Your task to perform on an android device: turn vacation reply on in the gmail app Image 0: 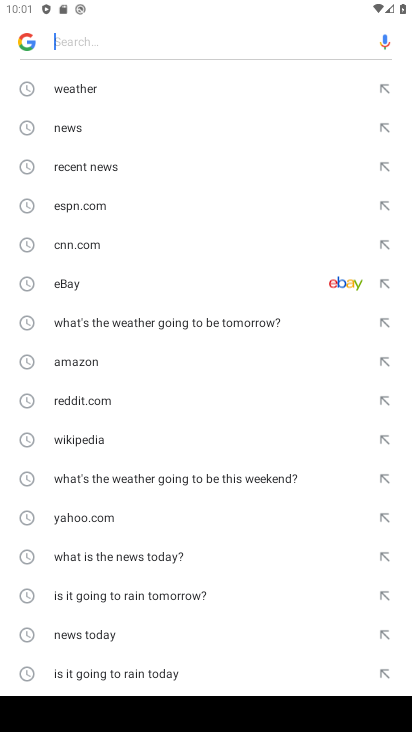
Step 0: press home button
Your task to perform on an android device: turn vacation reply on in the gmail app Image 1: 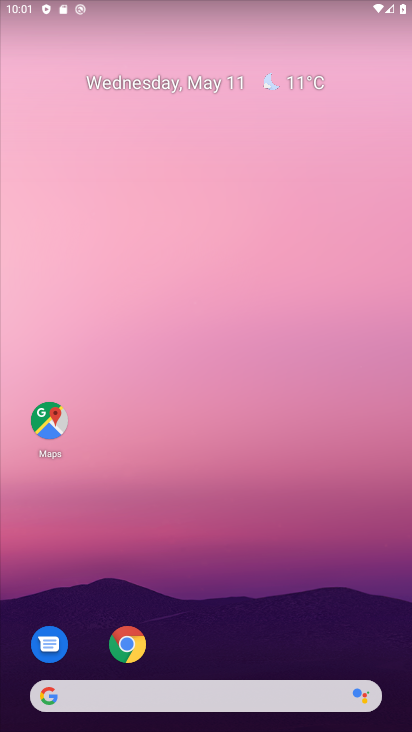
Step 1: drag from (344, 631) to (351, 3)
Your task to perform on an android device: turn vacation reply on in the gmail app Image 2: 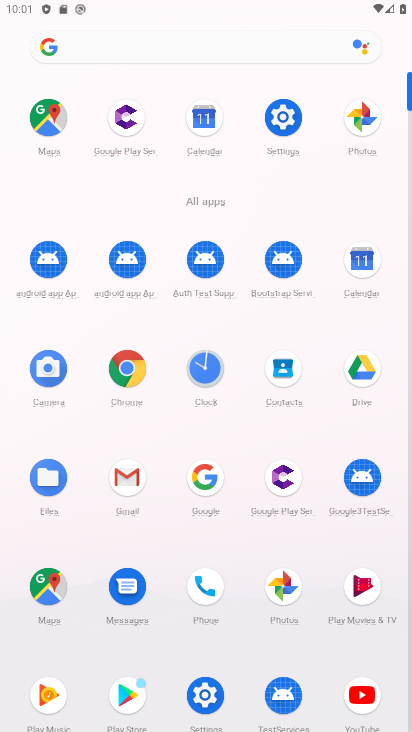
Step 2: click (128, 489)
Your task to perform on an android device: turn vacation reply on in the gmail app Image 3: 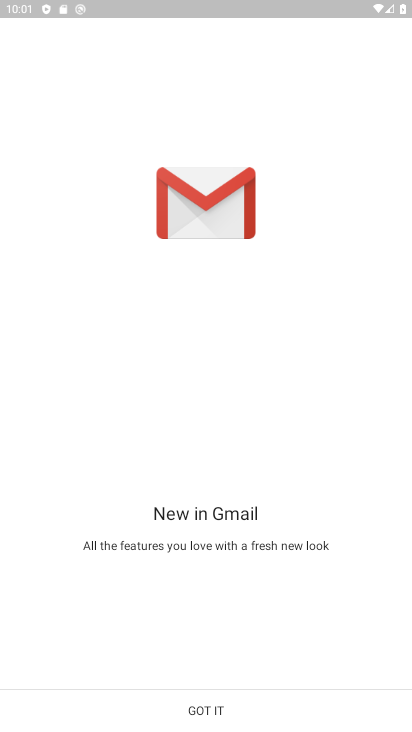
Step 3: click (198, 719)
Your task to perform on an android device: turn vacation reply on in the gmail app Image 4: 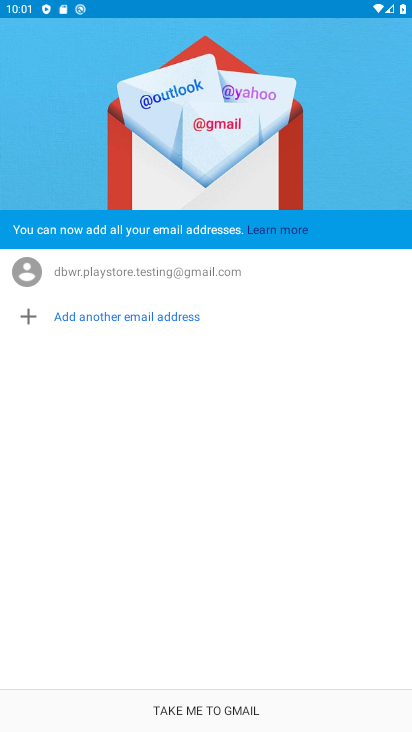
Step 4: click (223, 702)
Your task to perform on an android device: turn vacation reply on in the gmail app Image 5: 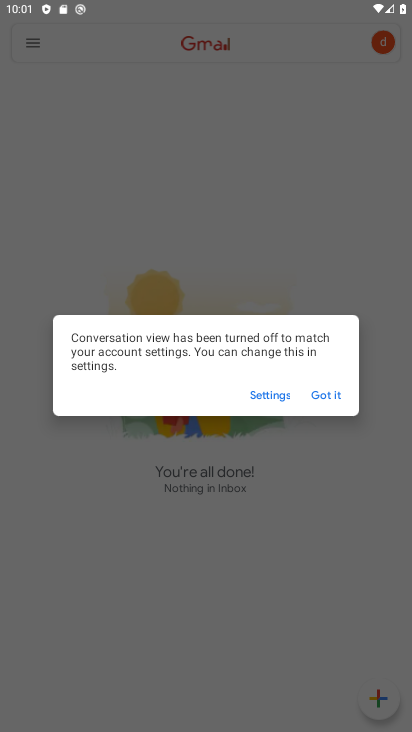
Step 5: click (330, 396)
Your task to perform on an android device: turn vacation reply on in the gmail app Image 6: 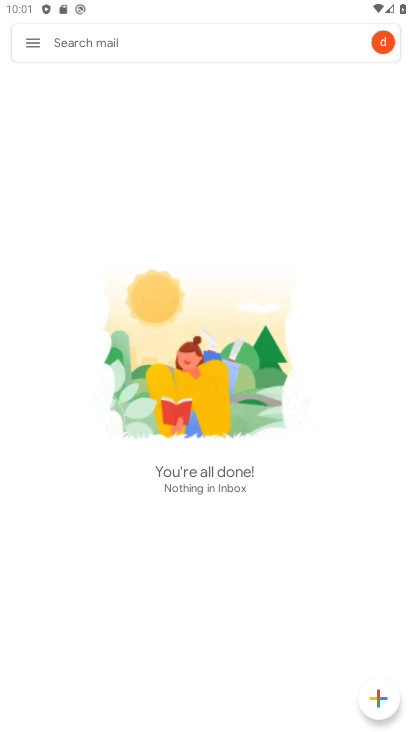
Step 6: click (32, 45)
Your task to perform on an android device: turn vacation reply on in the gmail app Image 7: 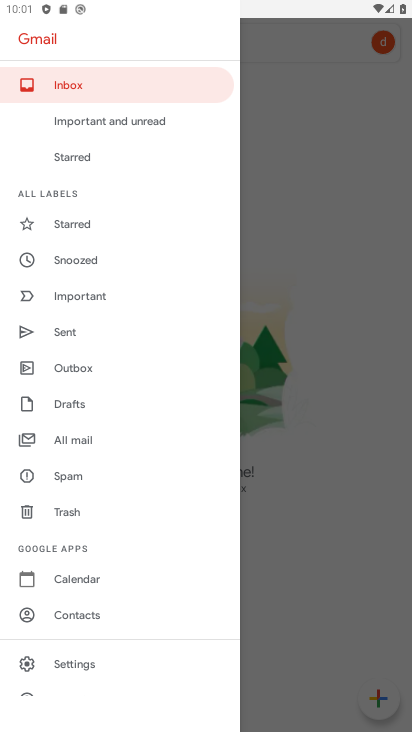
Step 7: click (85, 665)
Your task to perform on an android device: turn vacation reply on in the gmail app Image 8: 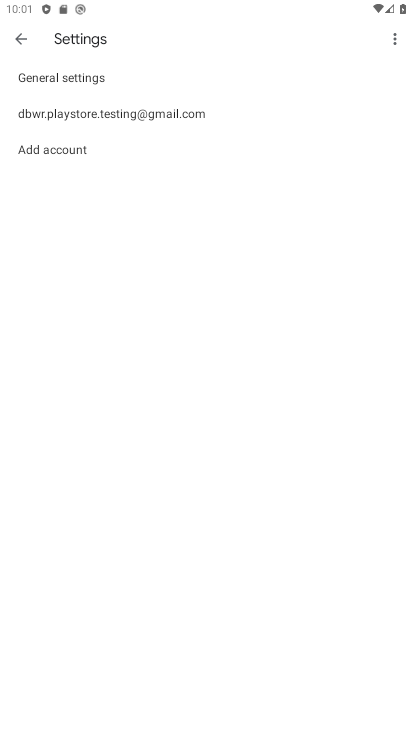
Step 8: click (119, 119)
Your task to perform on an android device: turn vacation reply on in the gmail app Image 9: 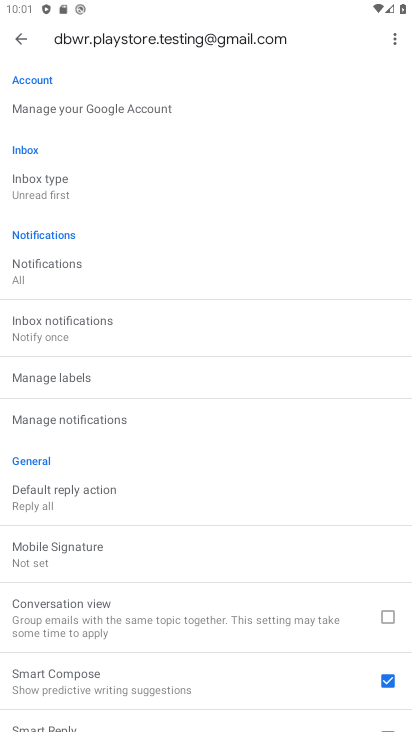
Step 9: drag from (154, 635) to (171, 162)
Your task to perform on an android device: turn vacation reply on in the gmail app Image 10: 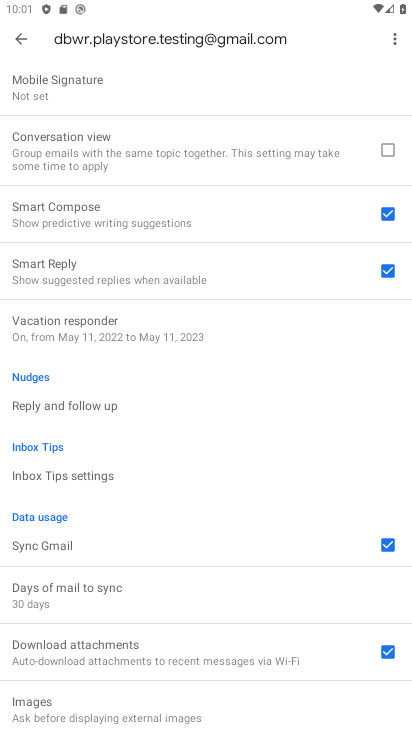
Step 10: click (73, 326)
Your task to perform on an android device: turn vacation reply on in the gmail app Image 11: 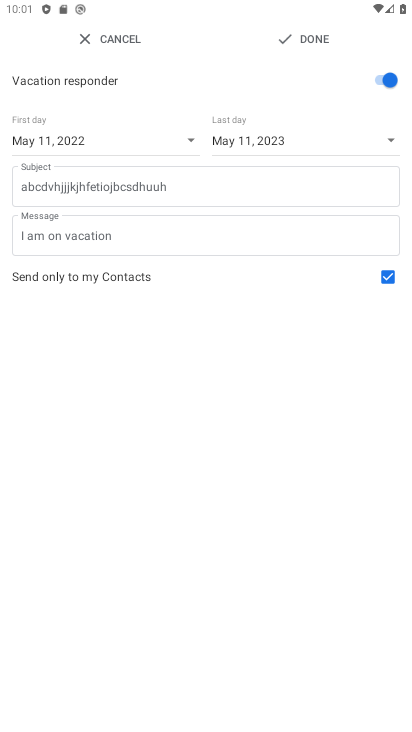
Step 11: click (301, 36)
Your task to perform on an android device: turn vacation reply on in the gmail app Image 12: 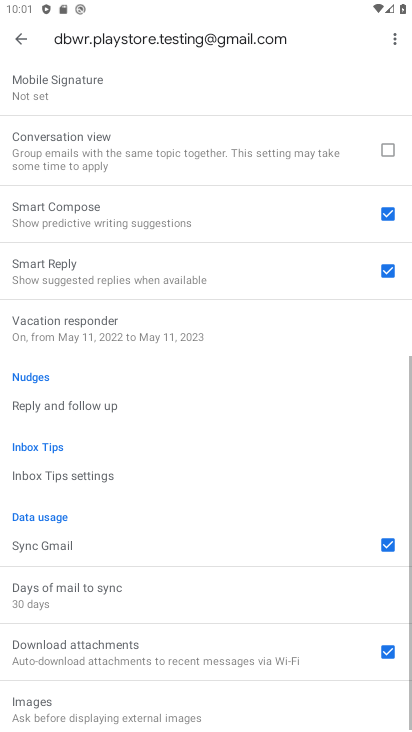
Step 12: task complete